Your task to perform on an android device: open device folders in google photos Image 0: 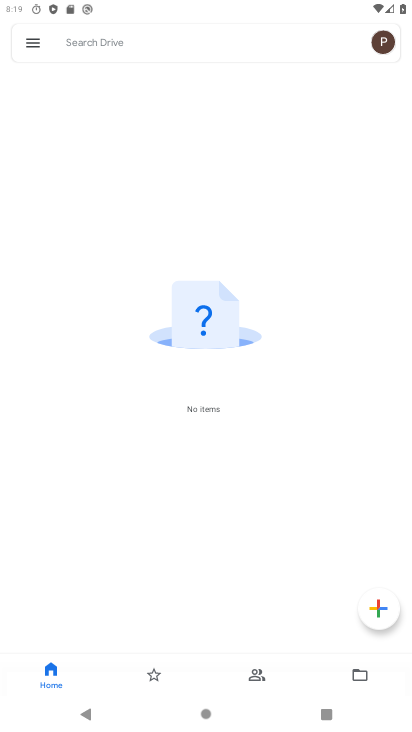
Step 0: press home button
Your task to perform on an android device: open device folders in google photos Image 1: 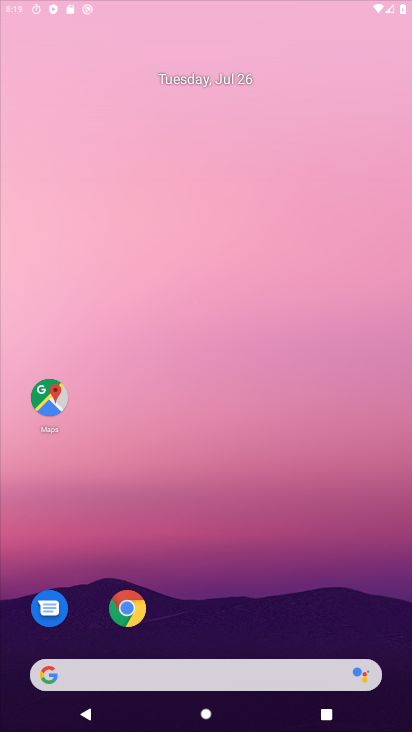
Step 1: drag from (185, 676) to (214, 39)
Your task to perform on an android device: open device folders in google photos Image 2: 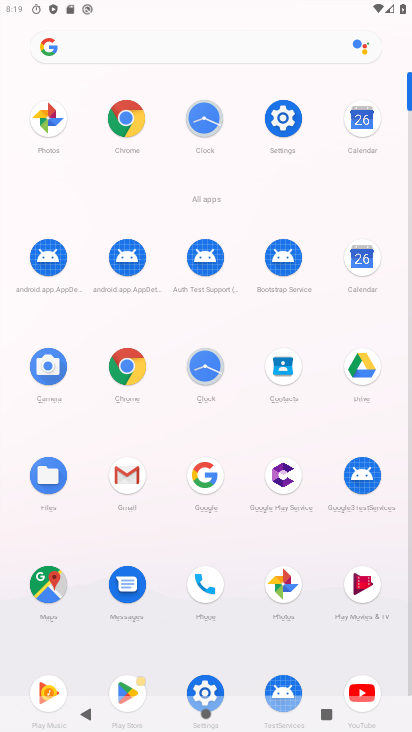
Step 2: click (280, 584)
Your task to perform on an android device: open device folders in google photos Image 3: 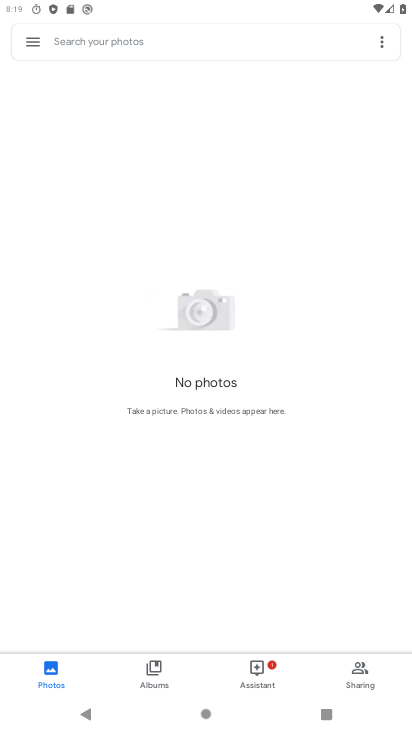
Step 3: click (34, 37)
Your task to perform on an android device: open device folders in google photos Image 4: 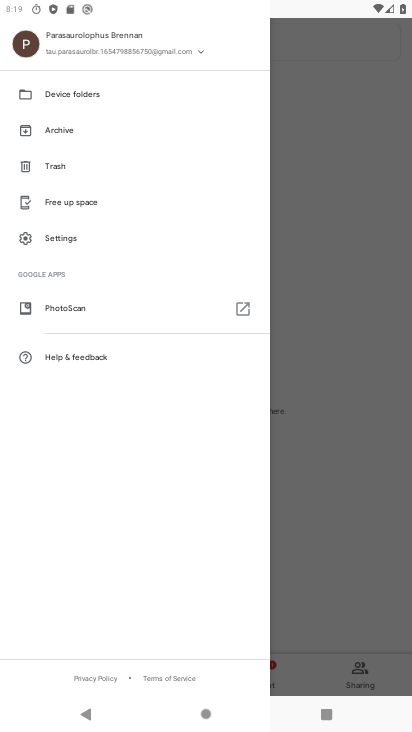
Step 4: click (73, 99)
Your task to perform on an android device: open device folders in google photos Image 5: 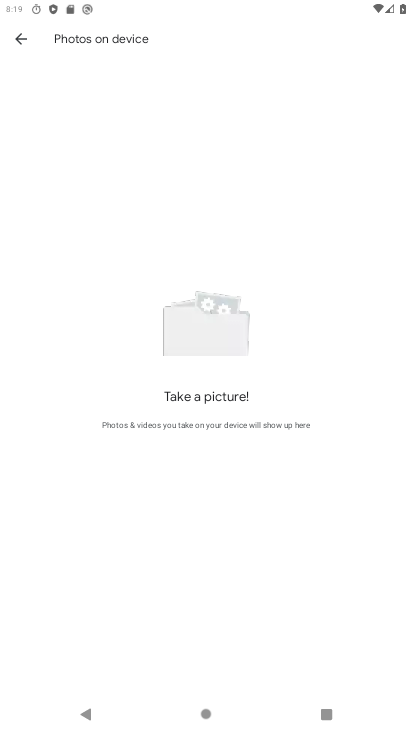
Step 5: task complete